Your task to perform on an android device: delete location history Image 0: 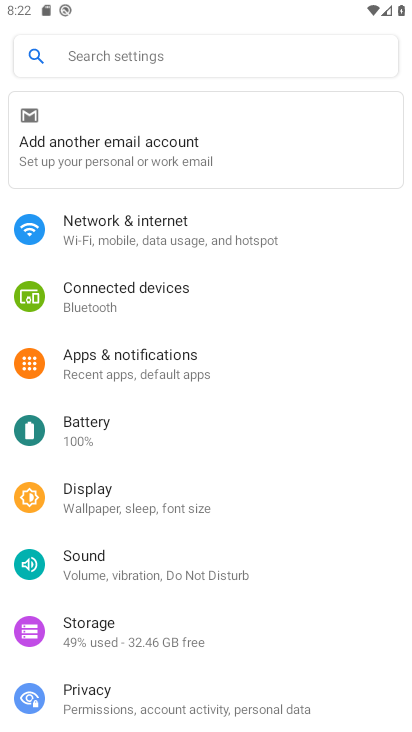
Step 0: press home button
Your task to perform on an android device: delete location history Image 1: 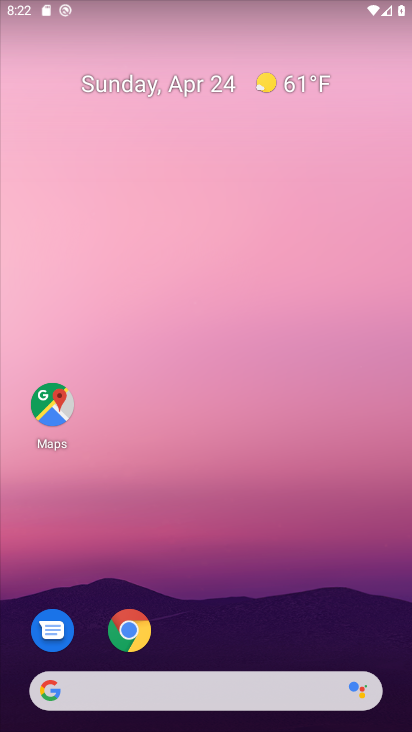
Step 1: drag from (359, 616) to (371, 57)
Your task to perform on an android device: delete location history Image 2: 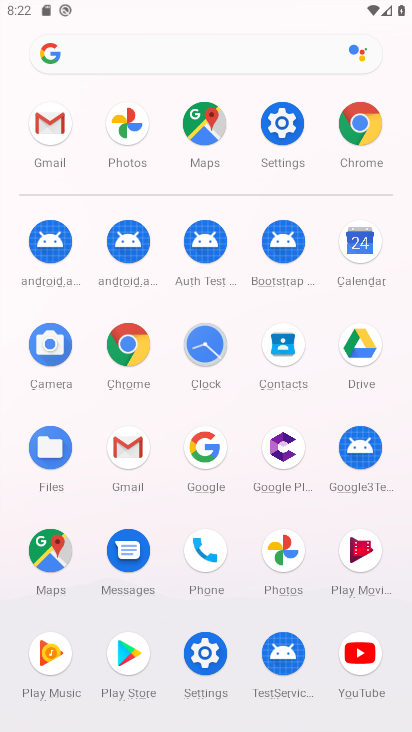
Step 2: click (206, 122)
Your task to perform on an android device: delete location history Image 3: 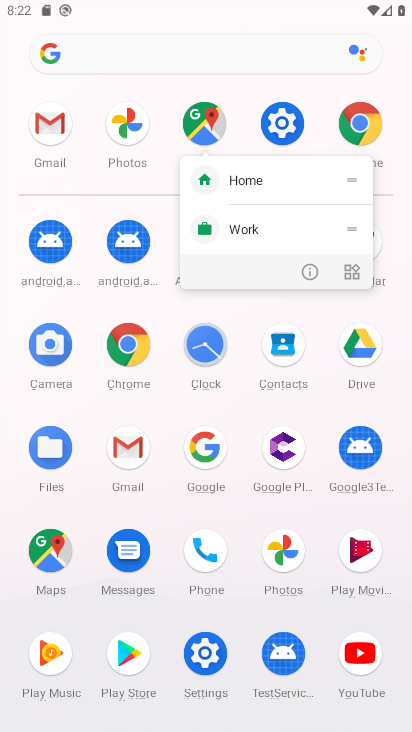
Step 3: click (211, 114)
Your task to perform on an android device: delete location history Image 4: 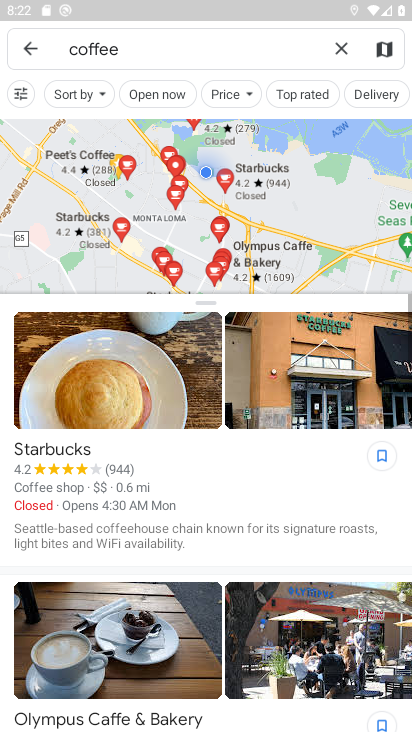
Step 4: click (32, 46)
Your task to perform on an android device: delete location history Image 5: 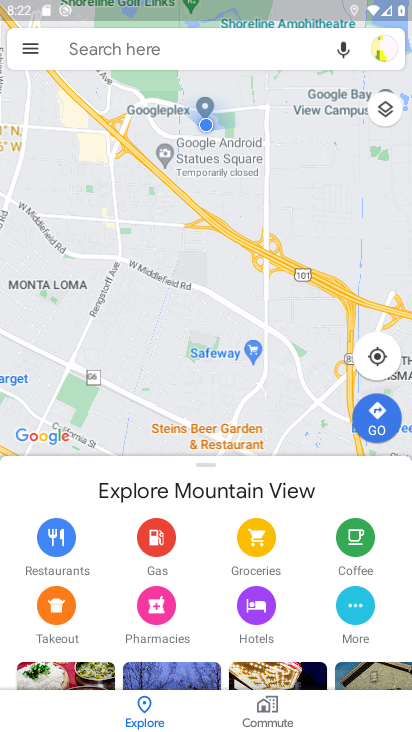
Step 5: click (31, 47)
Your task to perform on an android device: delete location history Image 6: 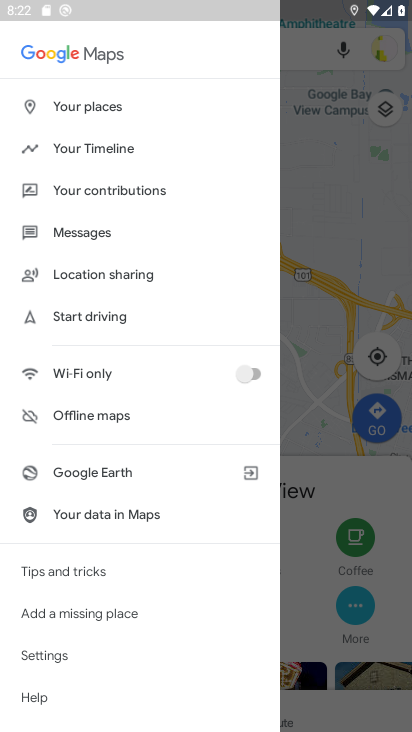
Step 6: click (110, 148)
Your task to perform on an android device: delete location history Image 7: 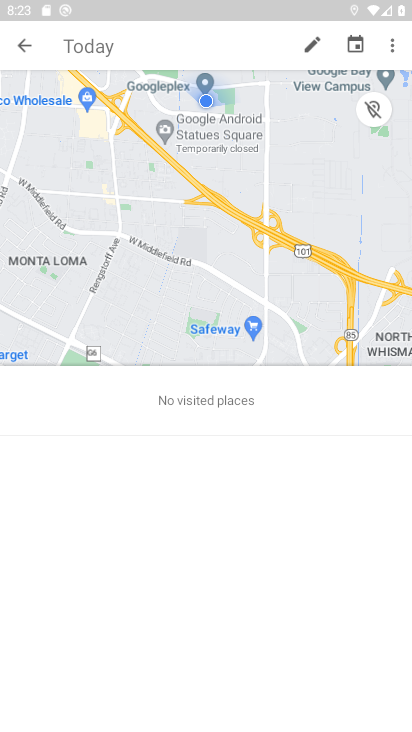
Step 7: click (393, 46)
Your task to perform on an android device: delete location history Image 8: 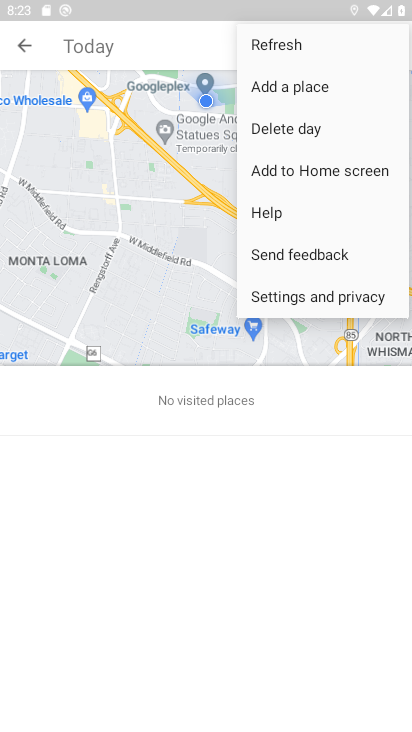
Step 8: click (340, 296)
Your task to perform on an android device: delete location history Image 9: 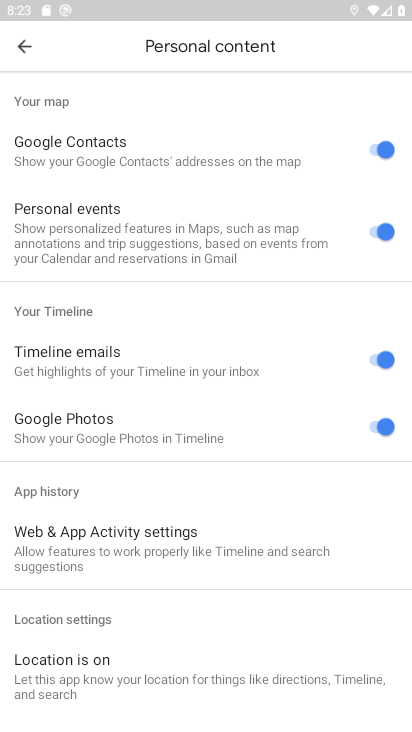
Step 9: drag from (312, 622) to (316, 473)
Your task to perform on an android device: delete location history Image 10: 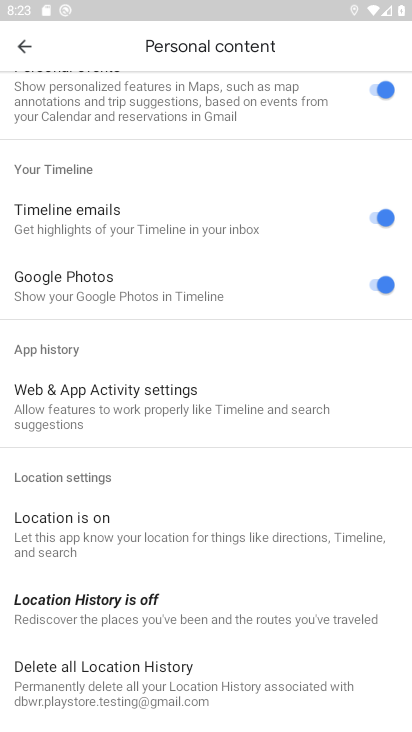
Step 10: drag from (308, 643) to (304, 497)
Your task to perform on an android device: delete location history Image 11: 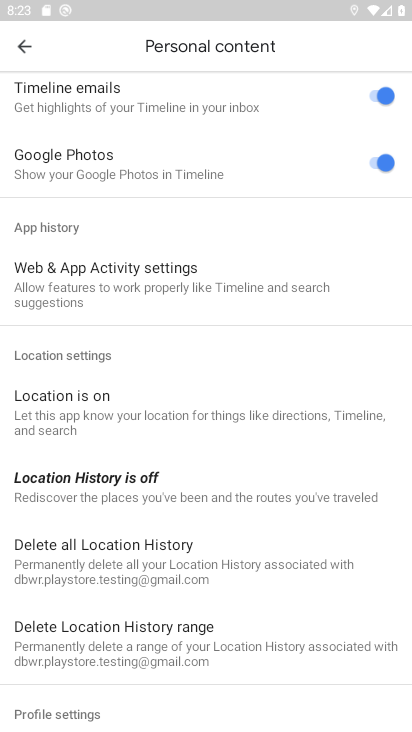
Step 11: drag from (282, 597) to (315, 424)
Your task to perform on an android device: delete location history Image 12: 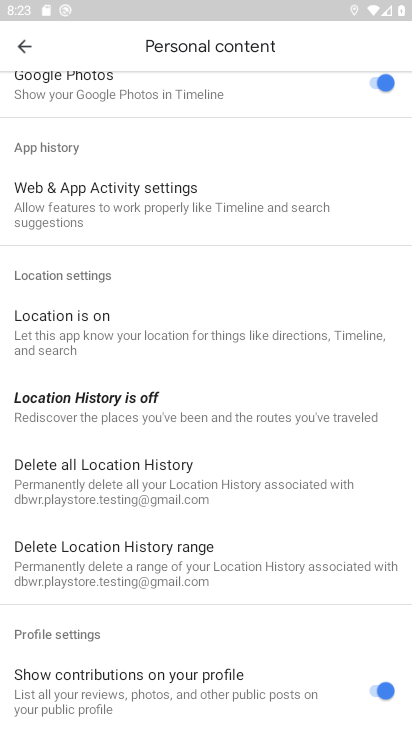
Step 12: click (272, 480)
Your task to perform on an android device: delete location history Image 13: 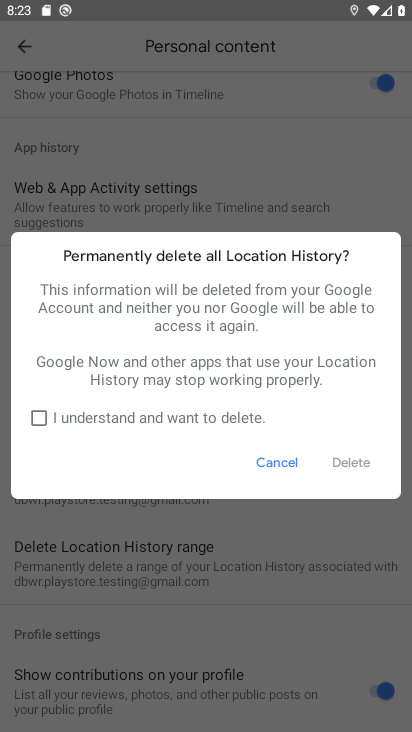
Step 13: click (36, 418)
Your task to perform on an android device: delete location history Image 14: 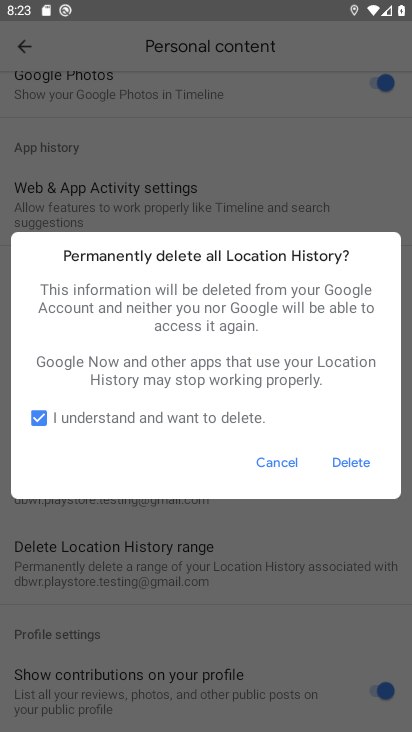
Step 14: click (363, 464)
Your task to perform on an android device: delete location history Image 15: 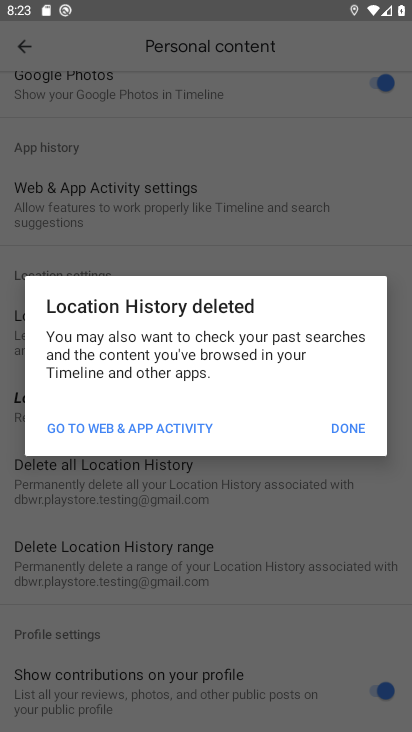
Step 15: click (347, 440)
Your task to perform on an android device: delete location history Image 16: 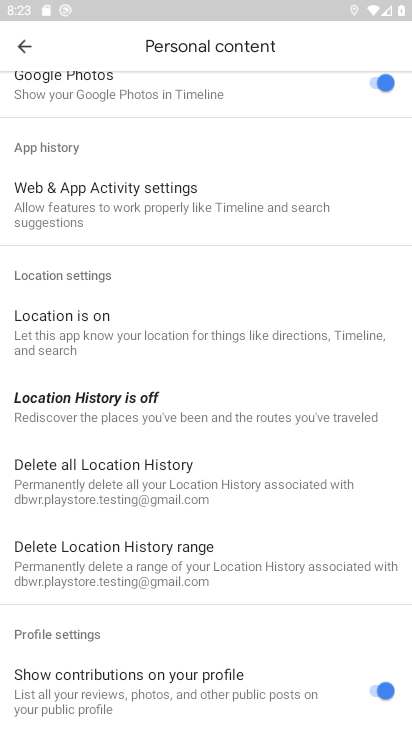
Step 16: task complete